Your task to perform on an android device: Open Chrome and go to settings Image 0: 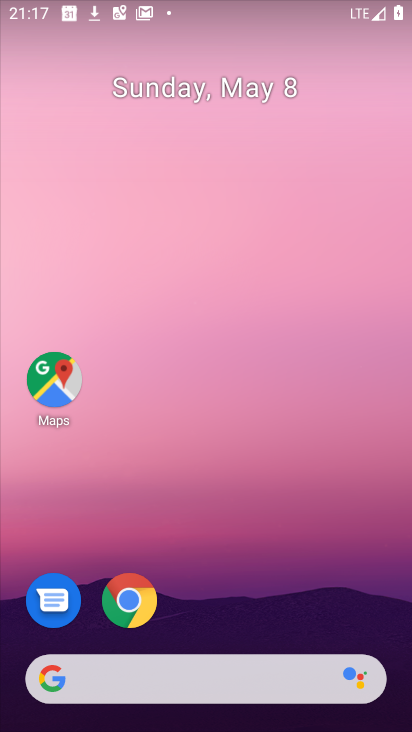
Step 0: drag from (187, 717) to (293, 284)
Your task to perform on an android device: Open Chrome and go to settings Image 1: 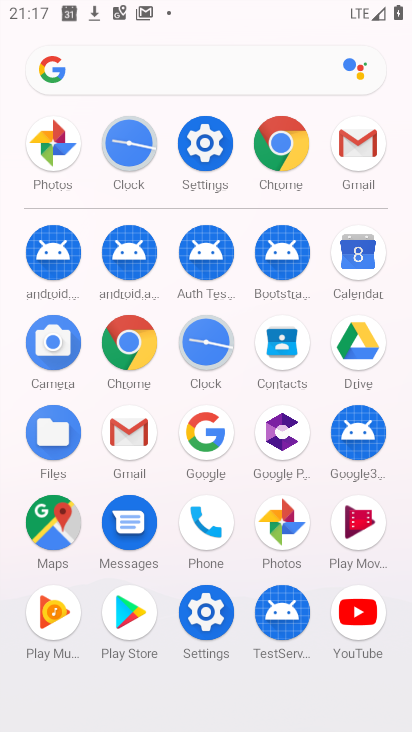
Step 1: click (271, 165)
Your task to perform on an android device: Open Chrome and go to settings Image 2: 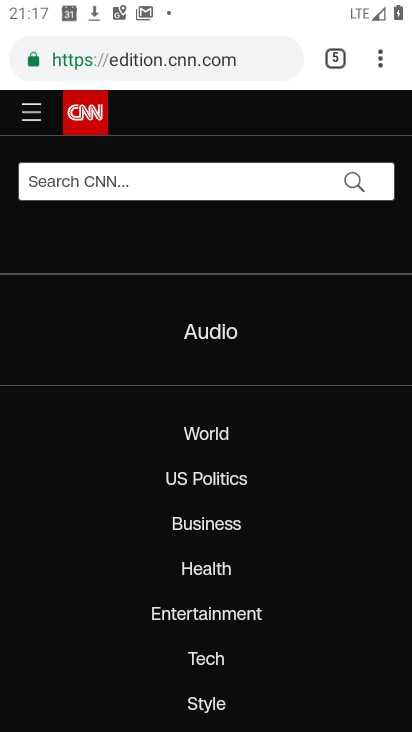
Step 2: click (372, 74)
Your task to perform on an android device: Open Chrome and go to settings Image 3: 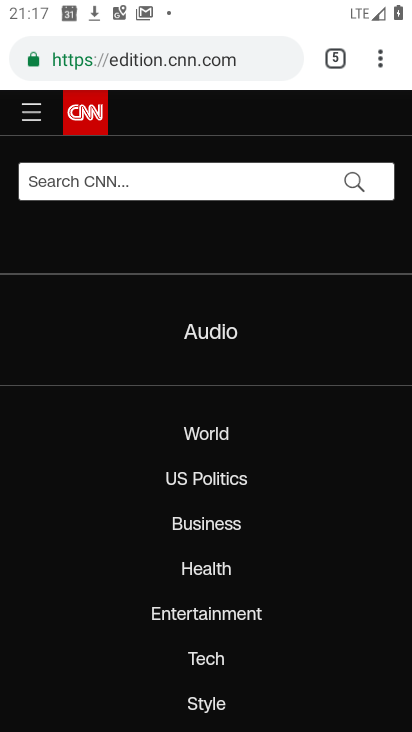
Step 3: click (378, 76)
Your task to perform on an android device: Open Chrome and go to settings Image 4: 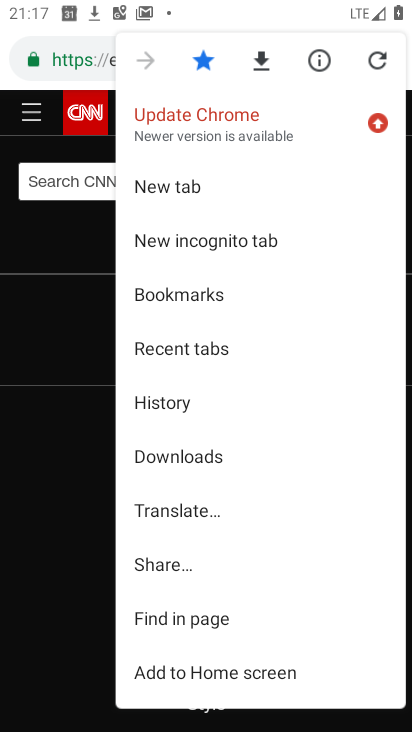
Step 4: click (253, 400)
Your task to perform on an android device: Open Chrome and go to settings Image 5: 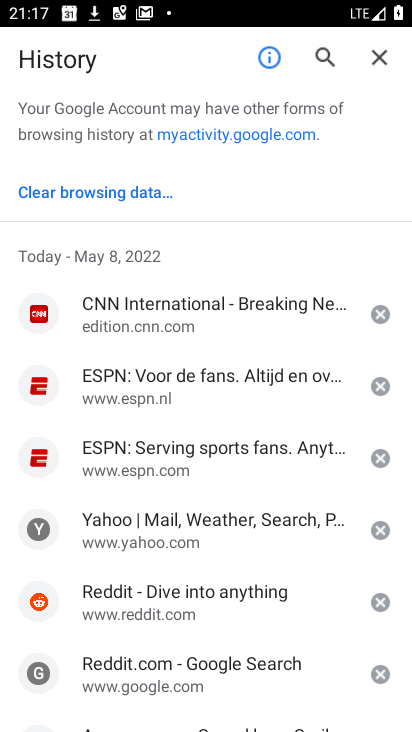
Step 5: click (371, 66)
Your task to perform on an android device: Open Chrome and go to settings Image 6: 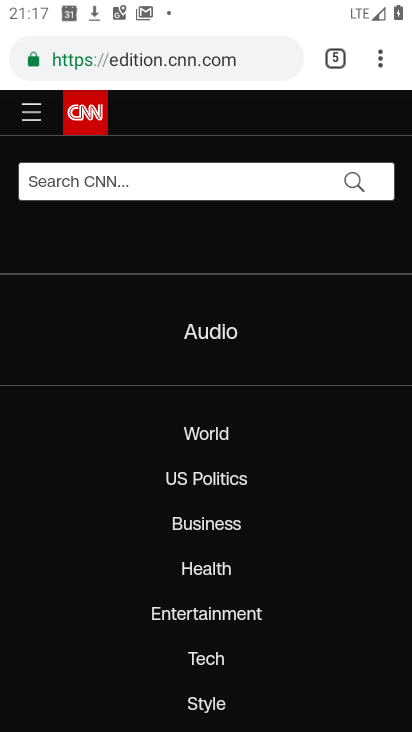
Step 6: click (339, 59)
Your task to perform on an android device: Open Chrome and go to settings Image 7: 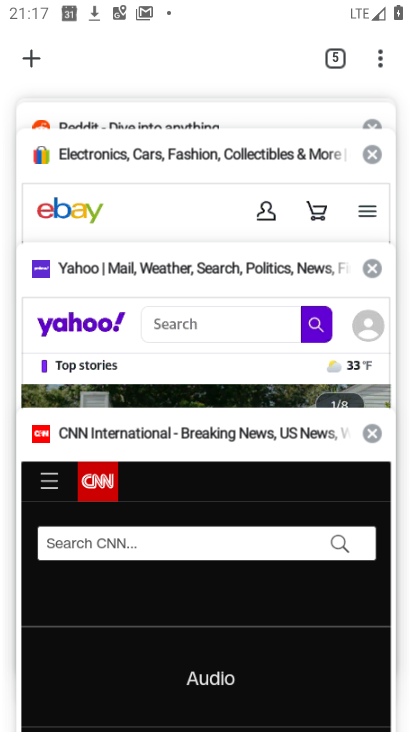
Step 7: click (367, 270)
Your task to perform on an android device: Open Chrome and go to settings Image 8: 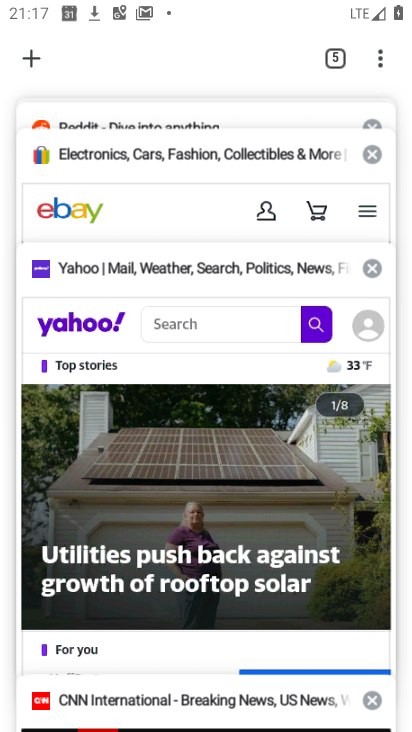
Step 8: click (367, 270)
Your task to perform on an android device: Open Chrome and go to settings Image 9: 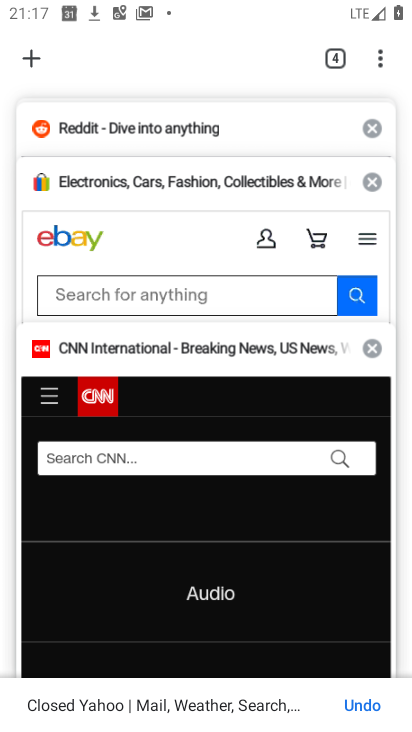
Step 9: click (373, 175)
Your task to perform on an android device: Open Chrome and go to settings Image 10: 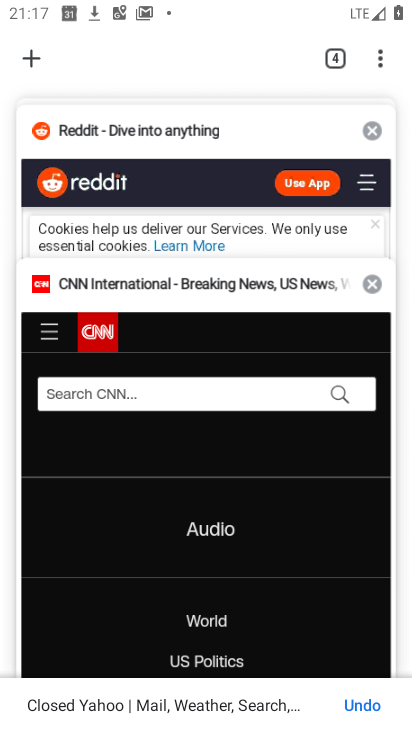
Step 10: click (369, 128)
Your task to perform on an android device: Open Chrome and go to settings Image 11: 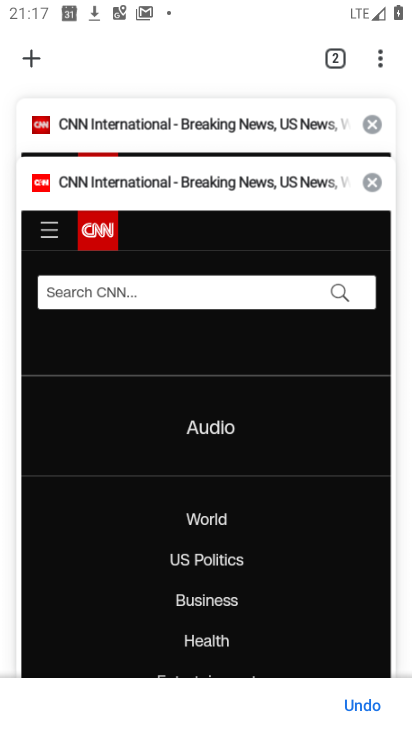
Step 11: click (32, 52)
Your task to perform on an android device: Open Chrome and go to settings Image 12: 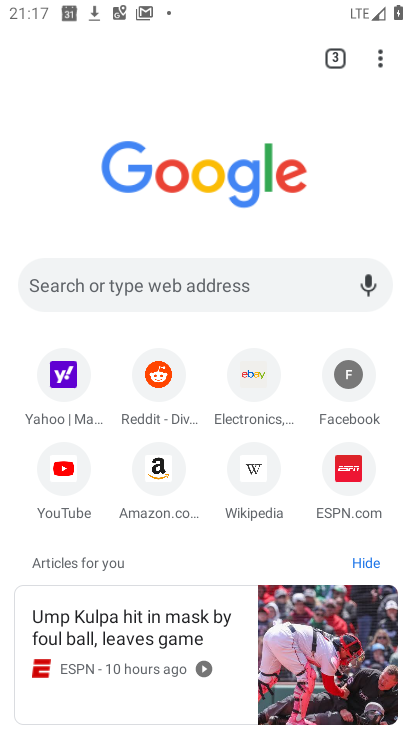
Step 12: click (375, 78)
Your task to perform on an android device: Open Chrome and go to settings Image 13: 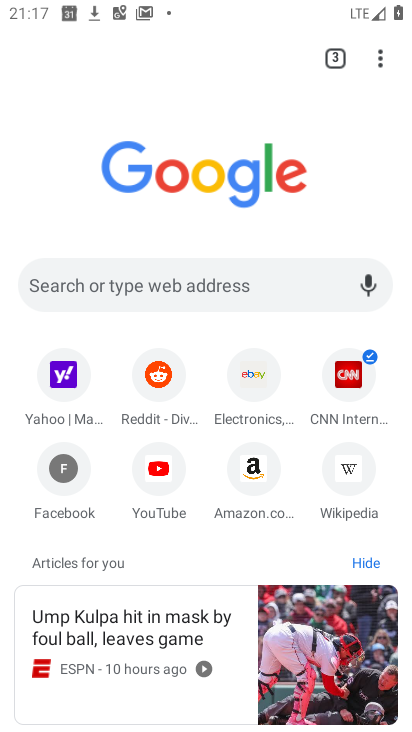
Step 13: click (379, 84)
Your task to perform on an android device: Open Chrome and go to settings Image 14: 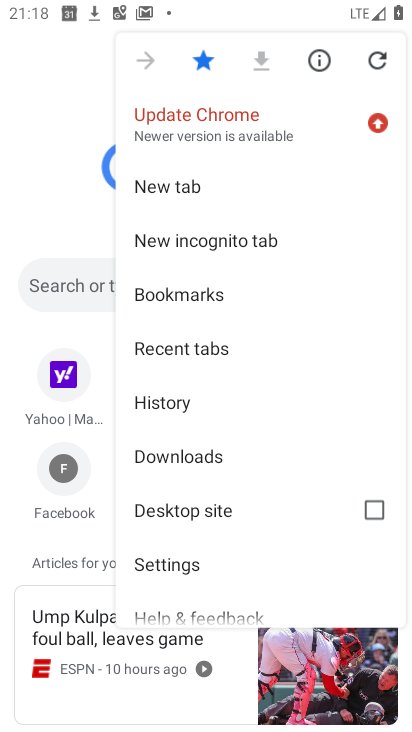
Step 14: click (178, 565)
Your task to perform on an android device: Open Chrome and go to settings Image 15: 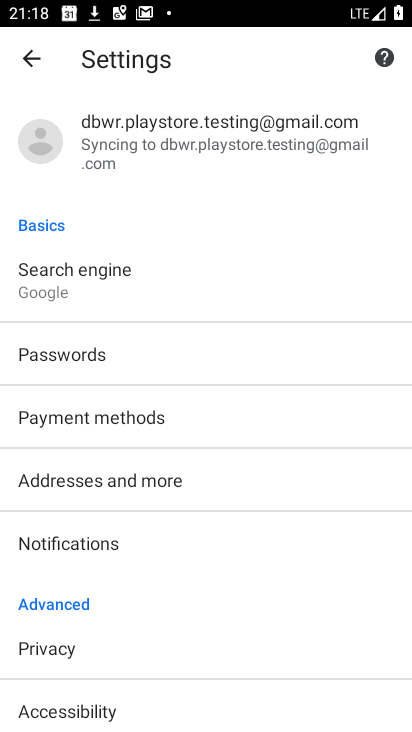
Step 15: click (177, 597)
Your task to perform on an android device: Open Chrome and go to settings Image 16: 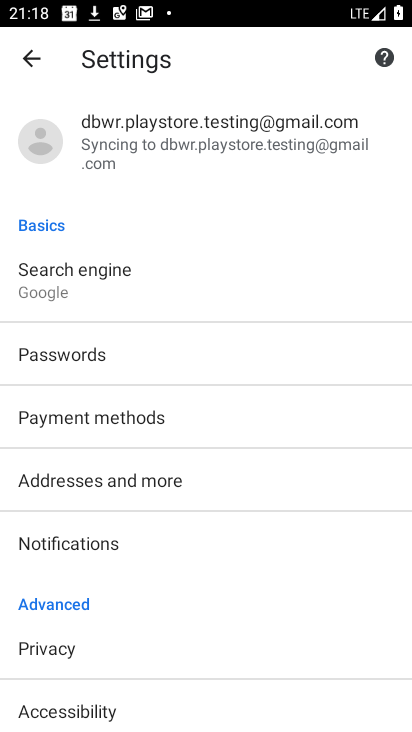
Step 16: task complete